Your task to perform on an android device: What's the weather today? Image 0: 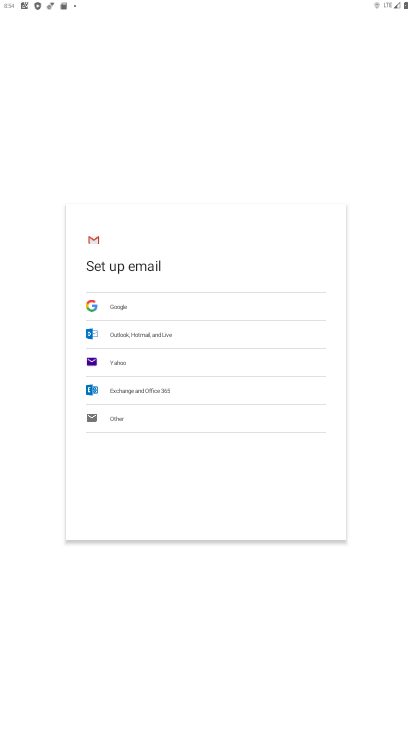
Step 0: press home button
Your task to perform on an android device: What's the weather today? Image 1: 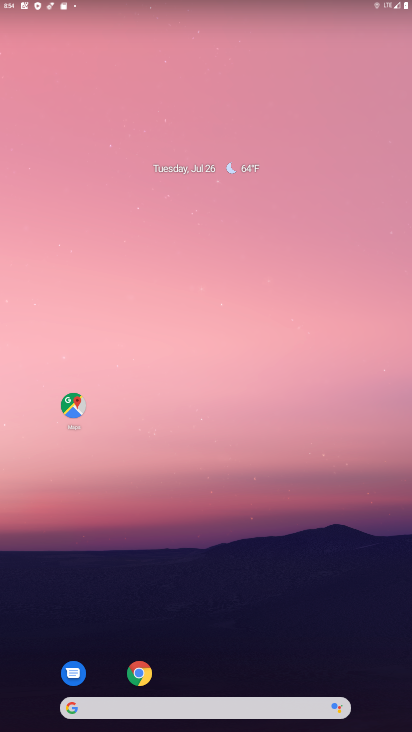
Step 1: drag from (233, 481) to (287, 145)
Your task to perform on an android device: What's the weather today? Image 2: 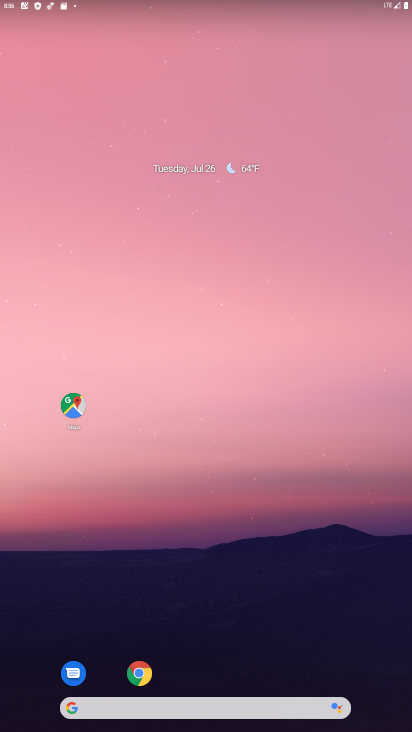
Step 2: drag from (143, 684) to (210, 28)
Your task to perform on an android device: What's the weather today? Image 3: 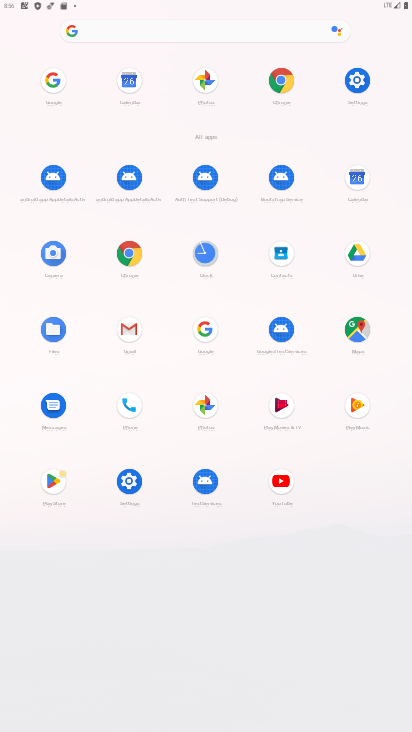
Step 3: click (137, 252)
Your task to perform on an android device: What's the weather today? Image 4: 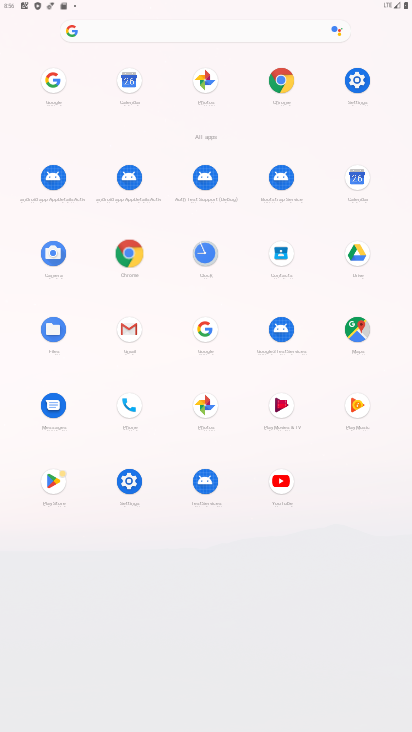
Step 4: click (131, 256)
Your task to perform on an android device: What's the weather today? Image 5: 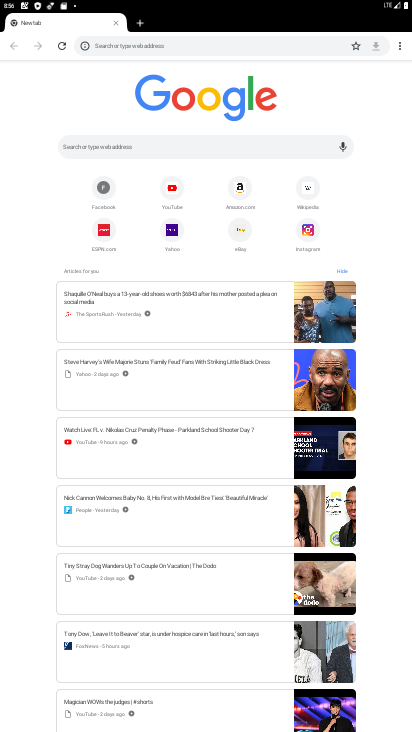
Step 5: click (194, 46)
Your task to perform on an android device: What's the weather today? Image 6: 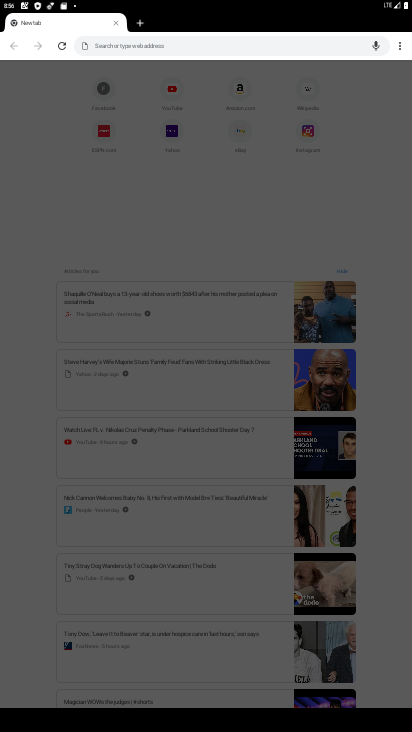
Step 6: type "weather today"
Your task to perform on an android device: What's the weather today? Image 7: 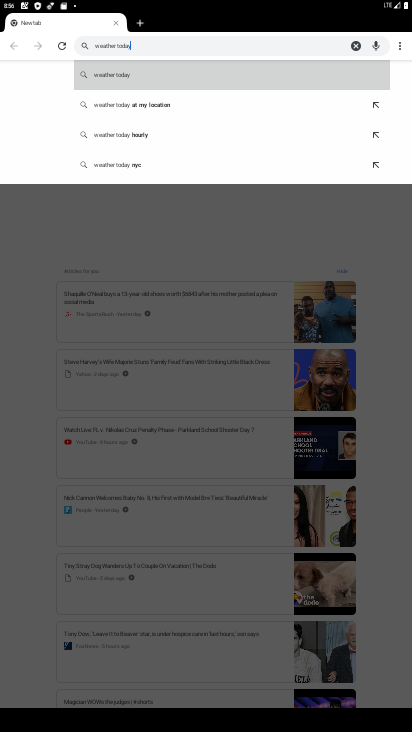
Step 7: click (149, 81)
Your task to perform on an android device: What's the weather today? Image 8: 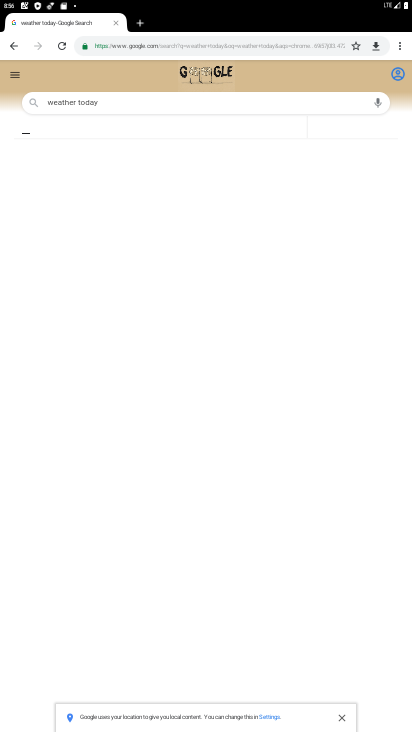
Step 8: task complete